Your task to perform on an android device: Go to CNN.com Image 0: 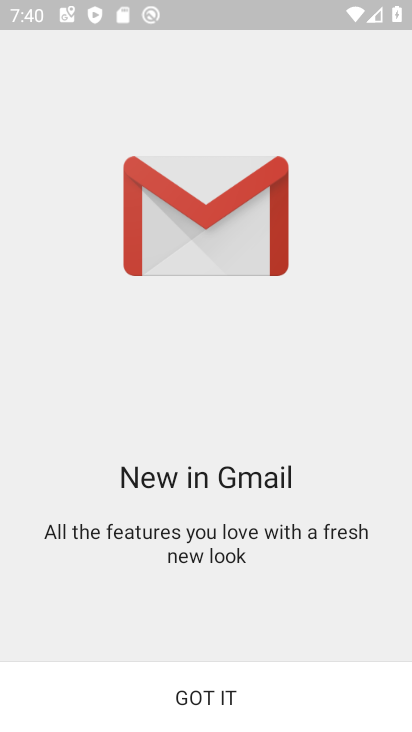
Step 0: press home button
Your task to perform on an android device: Go to CNN.com Image 1: 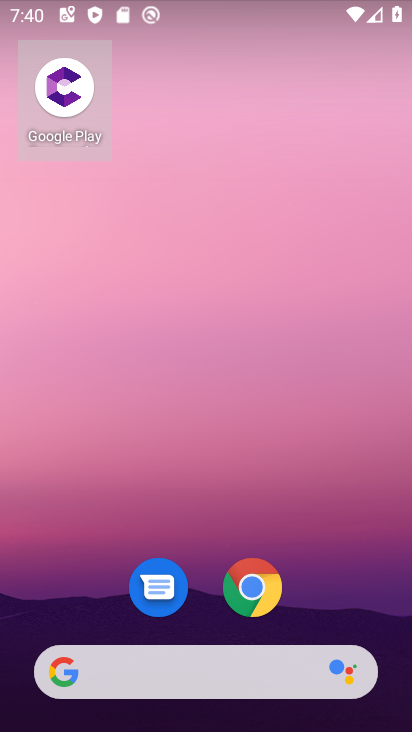
Step 1: click (272, 573)
Your task to perform on an android device: Go to CNN.com Image 2: 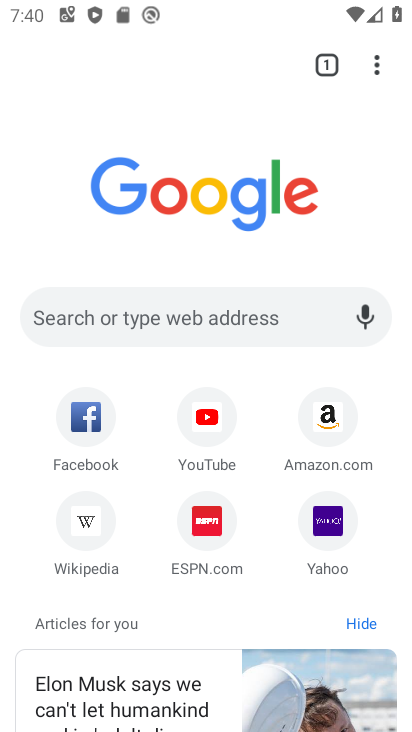
Step 2: click (301, 309)
Your task to perform on an android device: Go to CNN.com Image 3: 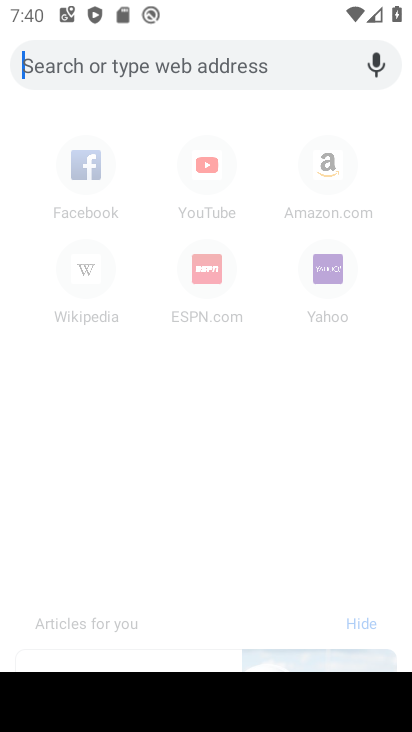
Step 3: type "cnn.com"
Your task to perform on an android device: Go to CNN.com Image 4: 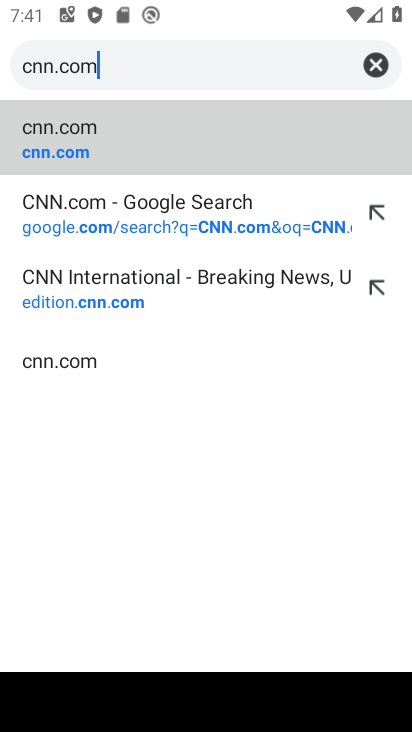
Step 4: click (70, 149)
Your task to perform on an android device: Go to CNN.com Image 5: 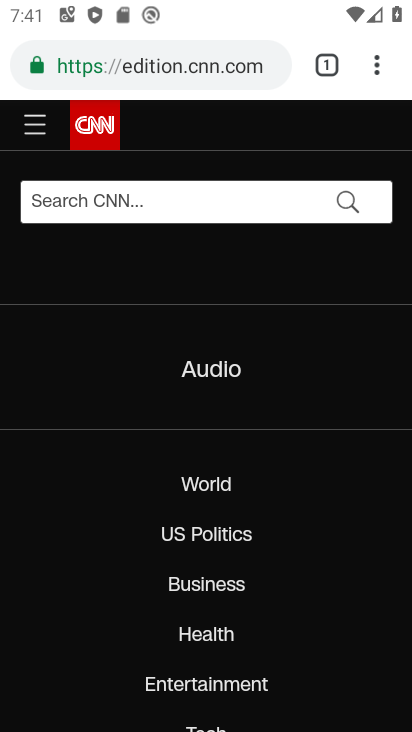
Step 5: task complete